Your task to perform on an android device: turn on notifications settings in the gmail app Image 0: 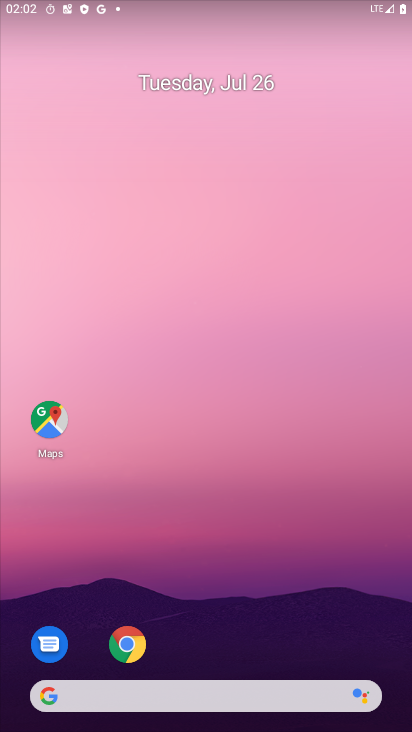
Step 0: drag from (280, 645) to (278, 76)
Your task to perform on an android device: turn on notifications settings in the gmail app Image 1: 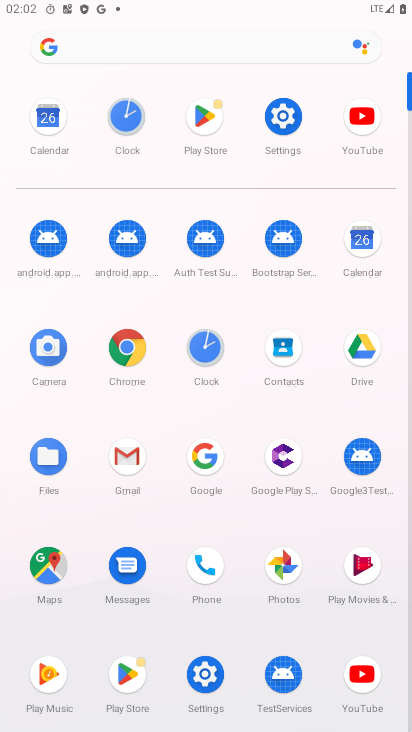
Step 1: click (124, 465)
Your task to perform on an android device: turn on notifications settings in the gmail app Image 2: 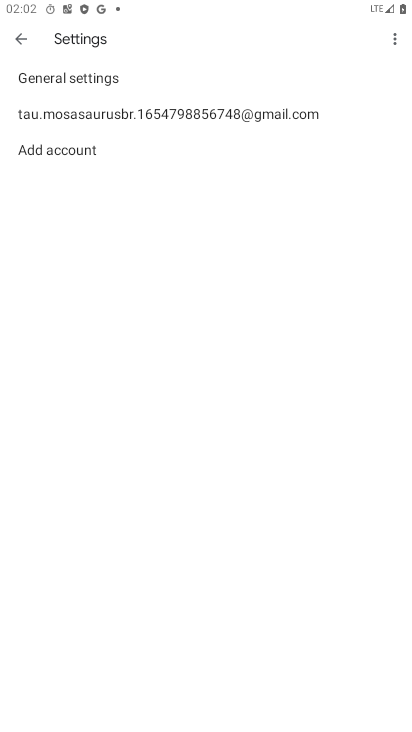
Step 2: click (48, 78)
Your task to perform on an android device: turn on notifications settings in the gmail app Image 3: 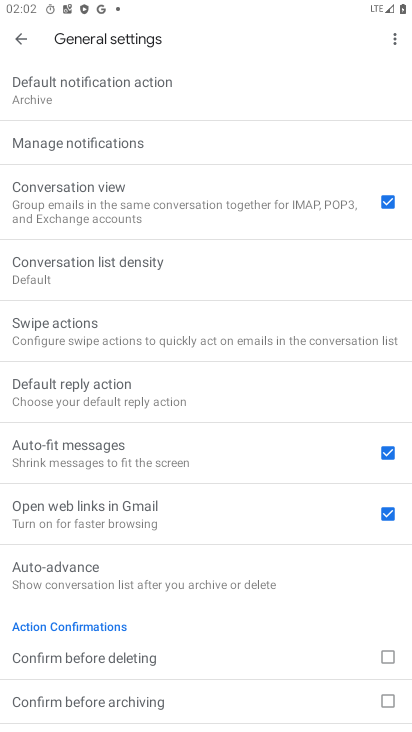
Step 3: click (67, 142)
Your task to perform on an android device: turn on notifications settings in the gmail app Image 4: 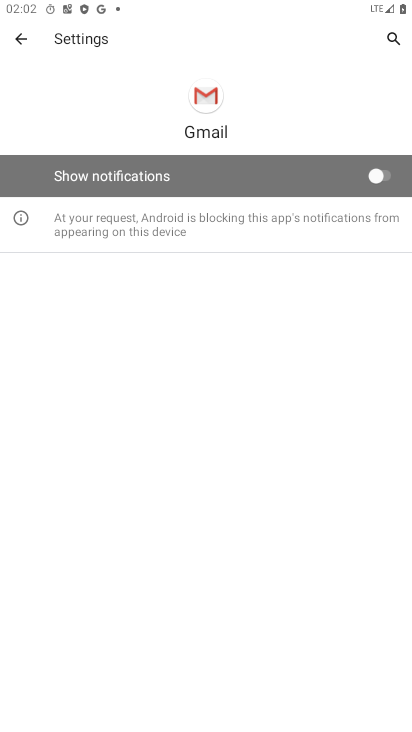
Step 4: click (383, 181)
Your task to perform on an android device: turn on notifications settings in the gmail app Image 5: 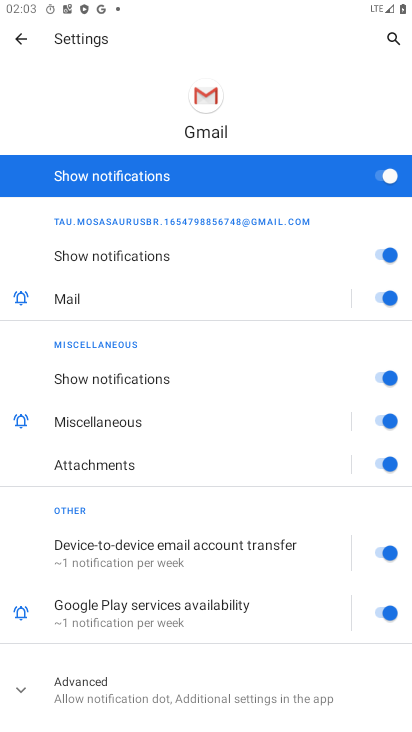
Step 5: task complete